Your task to perform on an android device: turn on improve location accuracy Image 0: 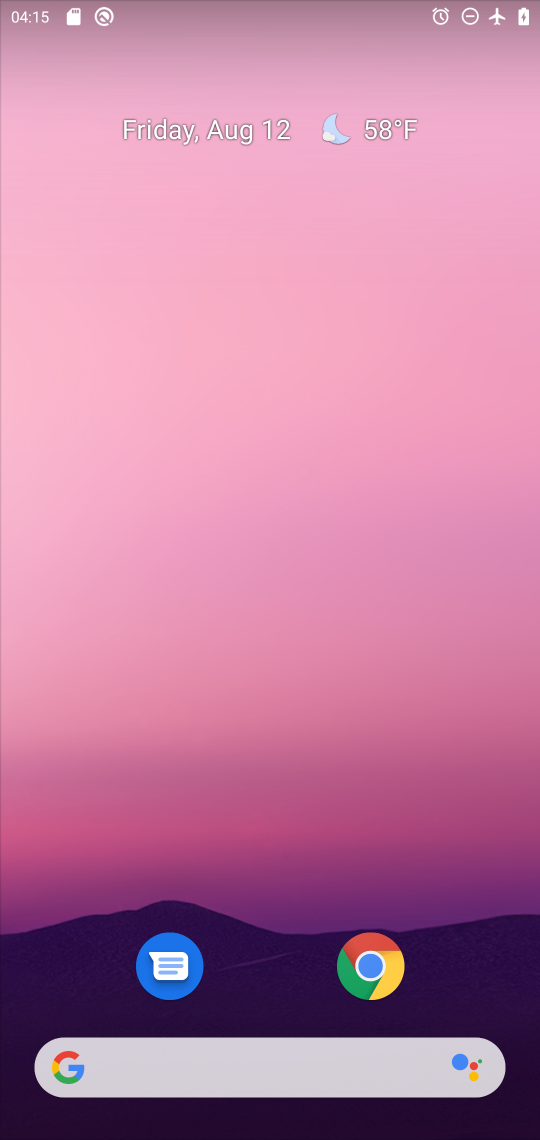
Step 0: drag from (230, 888) to (358, 65)
Your task to perform on an android device: turn on improve location accuracy Image 1: 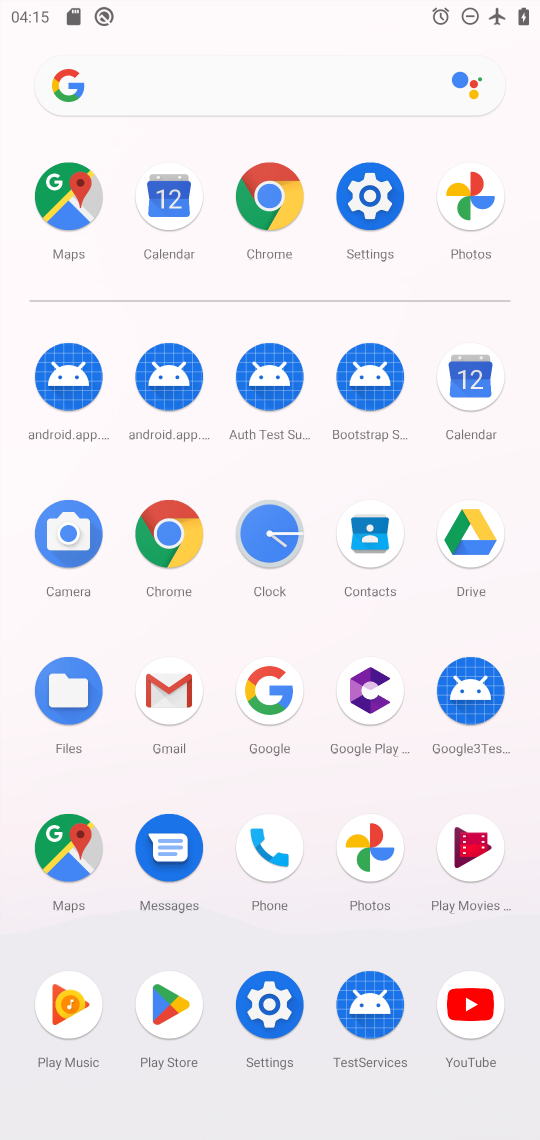
Step 1: click (267, 1013)
Your task to perform on an android device: turn on improve location accuracy Image 2: 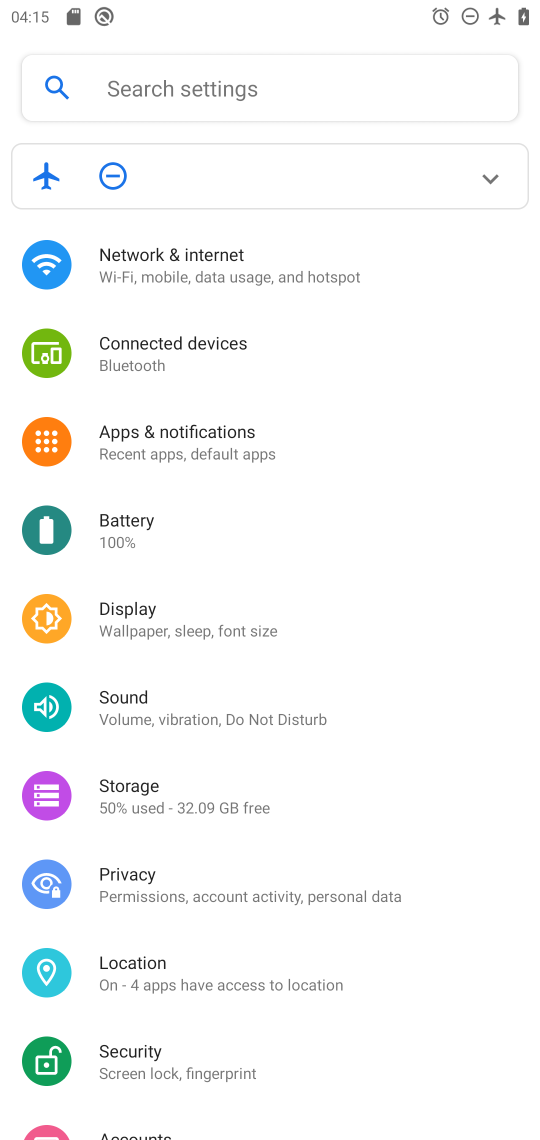
Step 2: click (135, 969)
Your task to perform on an android device: turn on improve location accuracy Image 3: 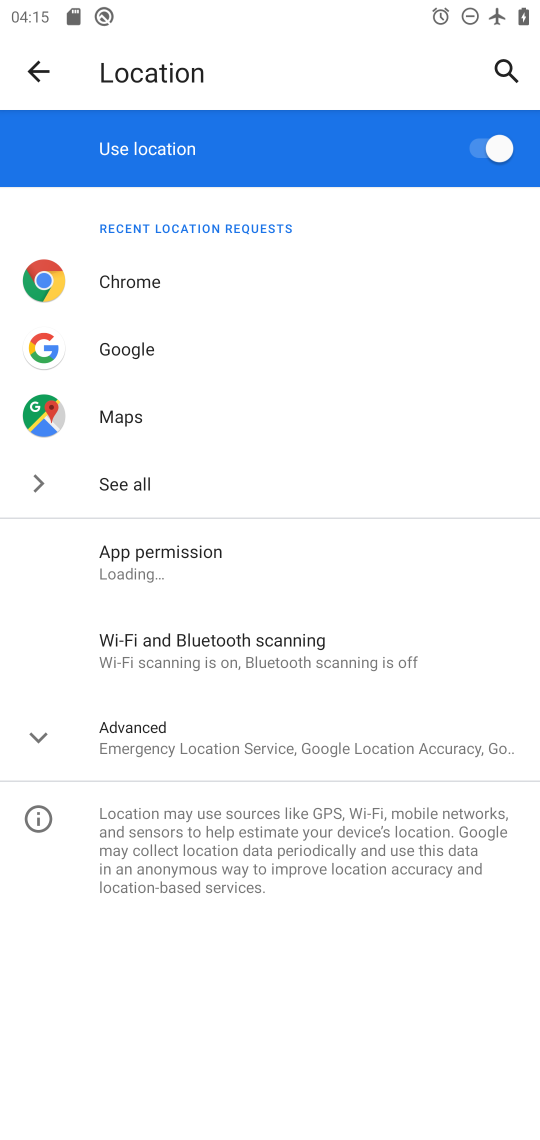
Step 3: click (206, 733)
Your task to perform on an android device: turn on improve location accuracy Image 4: 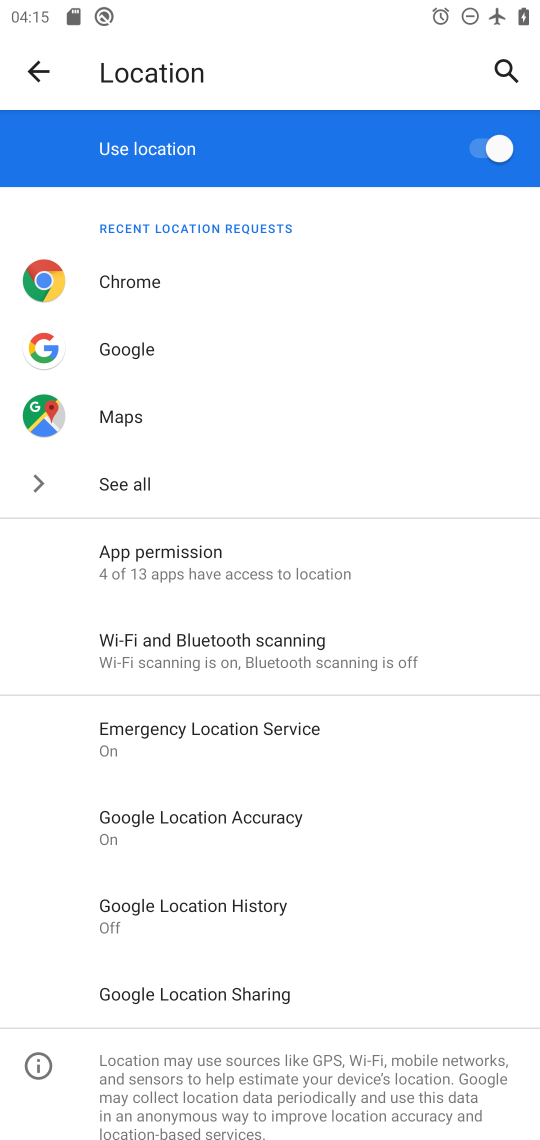
Step 4: click (253, 819)
Your task to perform on an android device: turn on improve location accuracy Image 5: 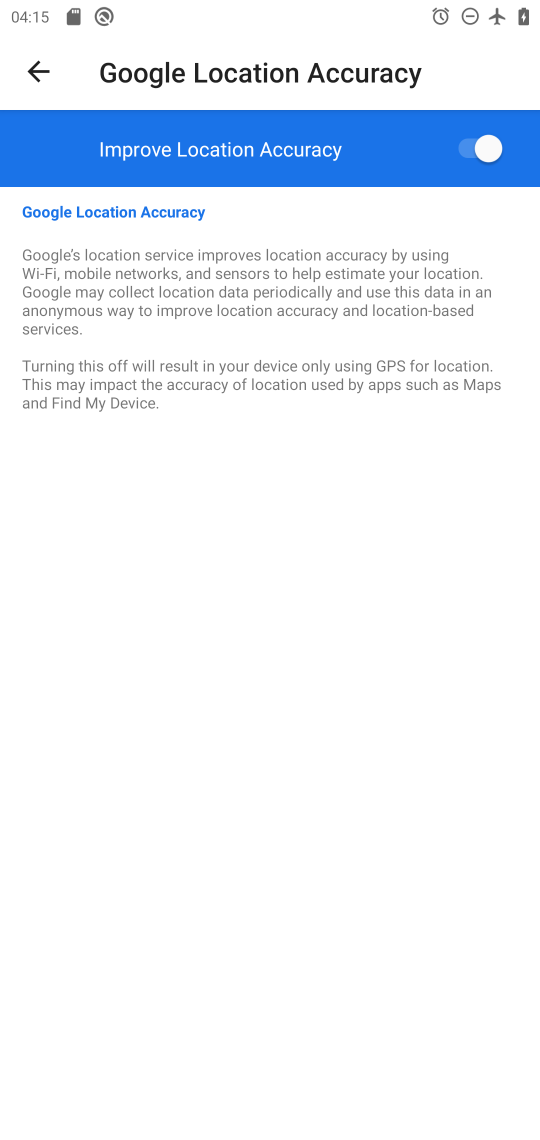
Step 5: task complete